Your task to perform on an android device: turn off notifications in google photos Image 0: 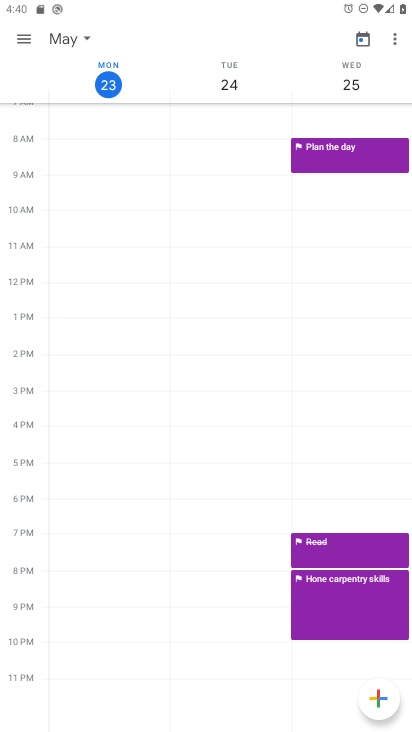
Step 0: press home button
Your task to perform on an android device: turn off notifications in google photos Image 1: 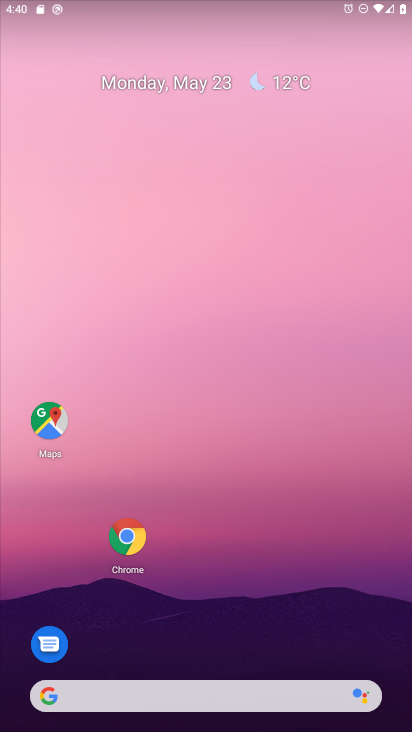
Step 1: drag from (292, 449) to (278, 188)
Your task to perform on an android device: turn off notifications in google photos Image 2: 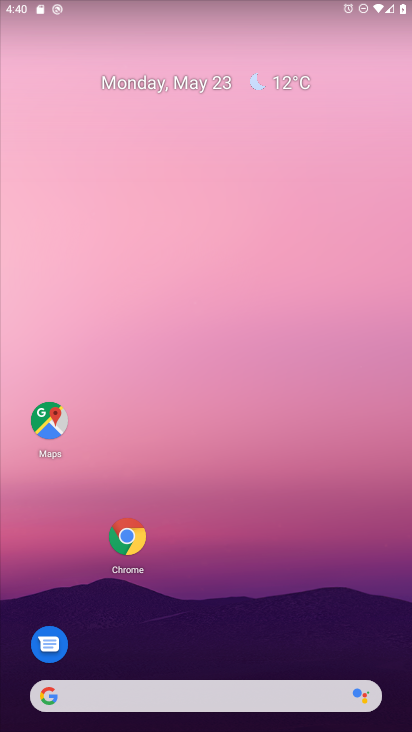
Step 2: drag from (198, 595) to (246, 174)
Your task to perform on an android device: turn off notifications in google photos Image 3: 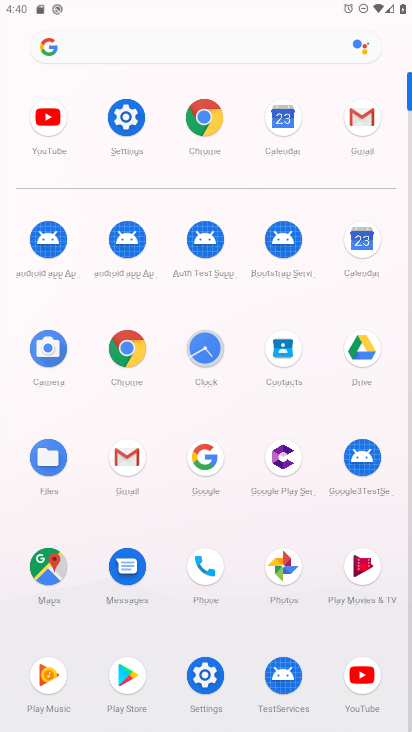
Step 3: click (279, 556)
Your task to perform on an android device: turn off notifications in google photos Image 4: 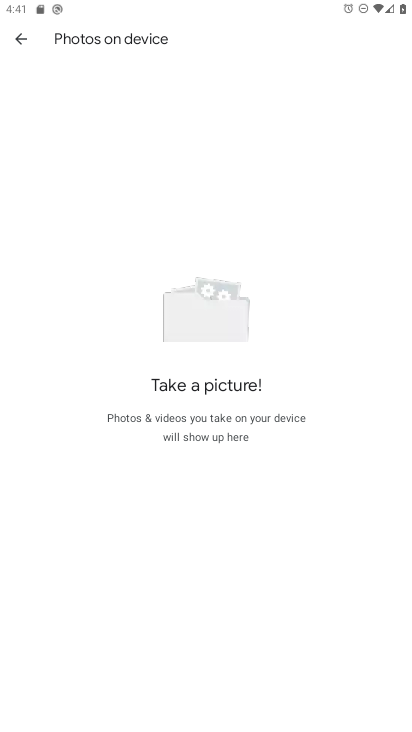
Step 4: click (22, 38)
Your task to perform on an android device: turn off notifications in google photos Image 5: 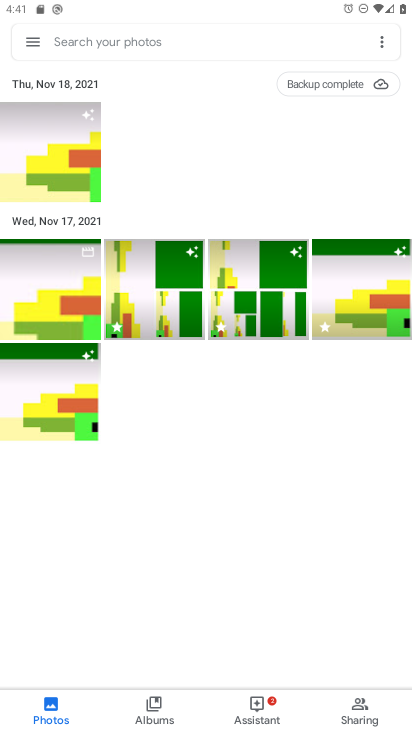
Step 5: click (22, 39)
Your task to perform on an android device: turn off notifications in google photos Image 6: 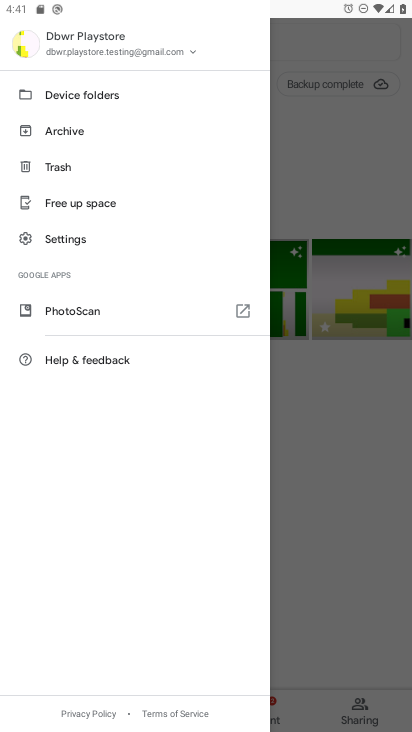
Step 6: click (85, 245)
Your task to perform on an android device: turn off notifications in google photos Image 7: 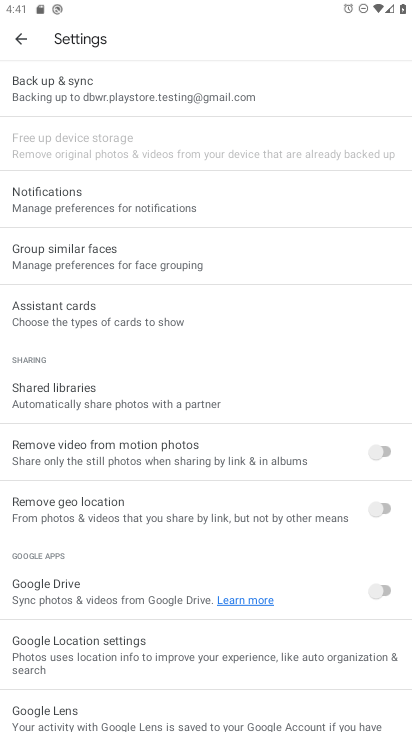
Step 7: click (130, 211)
Your task to perform on an android device: turn off notifications in google photos Image 8: 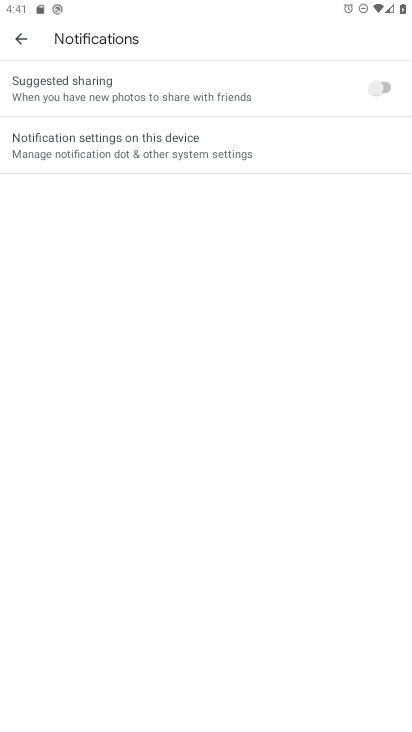
Step 8: click (146, 134)
Your task to perform on an android device: turn off notifications in google photos Image 9: 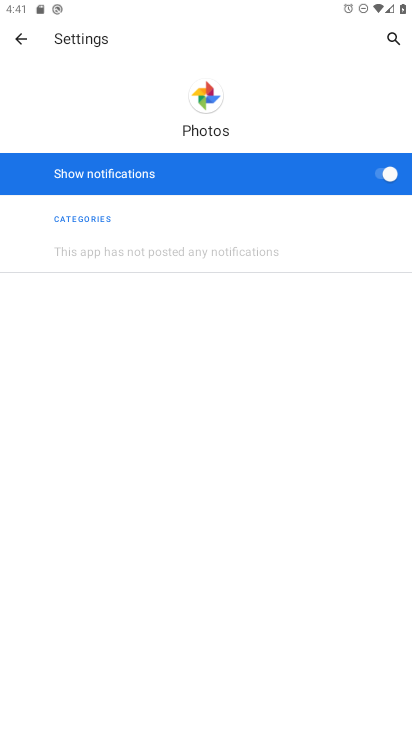
Step 9: click (383, 175)
Your task to perform on an android device: turn off notifications in google photos Image 10: 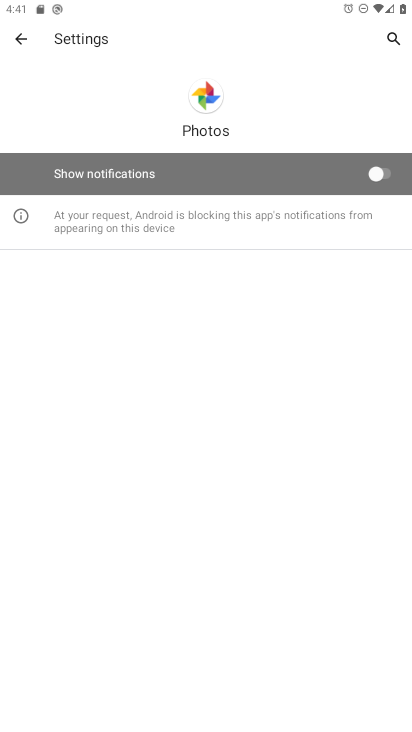
Step 10: task complete